Your task to perform on an android device: star an email in the gmail app Image 0: 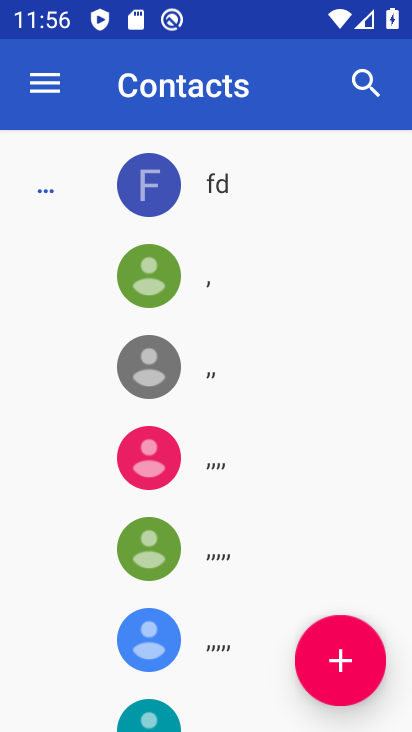
Step 0: drag from (198, 604) to (197, 371)
Your task to perform on an android device: star an email in the gmail app Image 1: 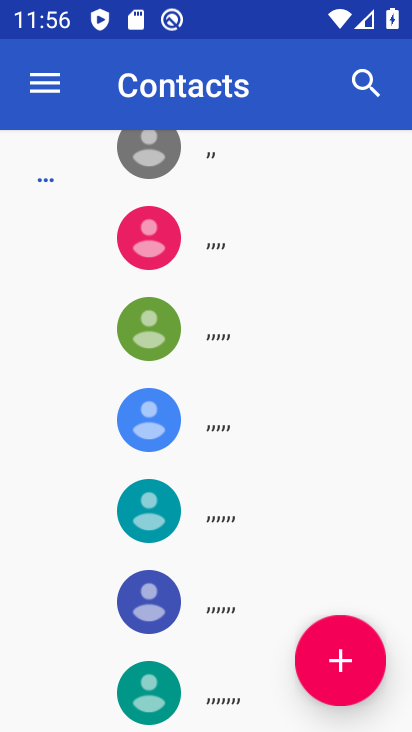
Step 1: press home button
Your task to perform on an android device: star an email in the gmail app Image 2: 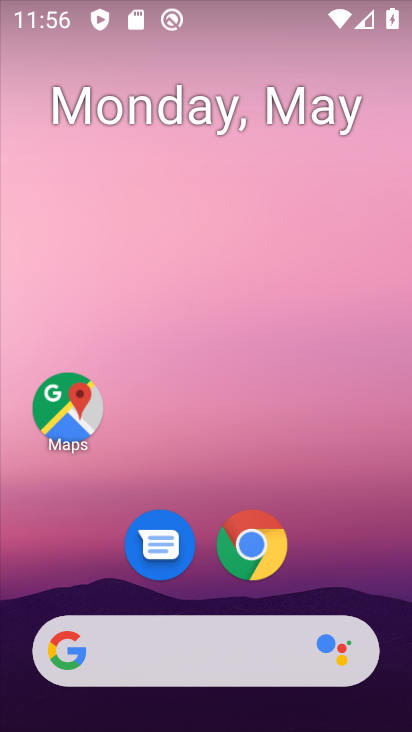
Step 2: drag from (203, 601) to (185, 167)
Your task to perform on an android device: star an email in the gmail app Image 3: 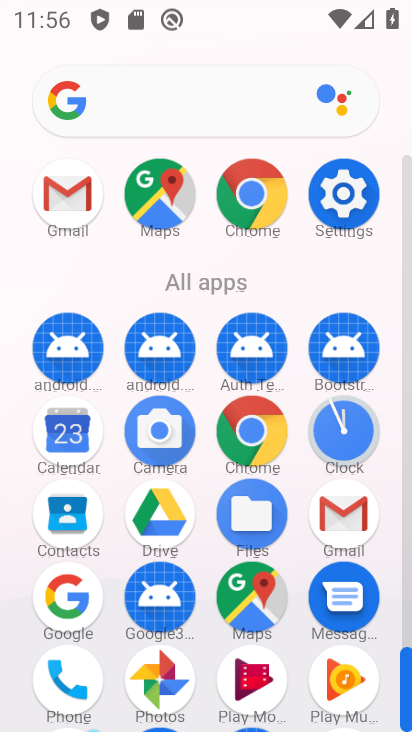
Step 3: click (82, 183)
Your task to perform on an android device: star an email in the gmail app Image 4: 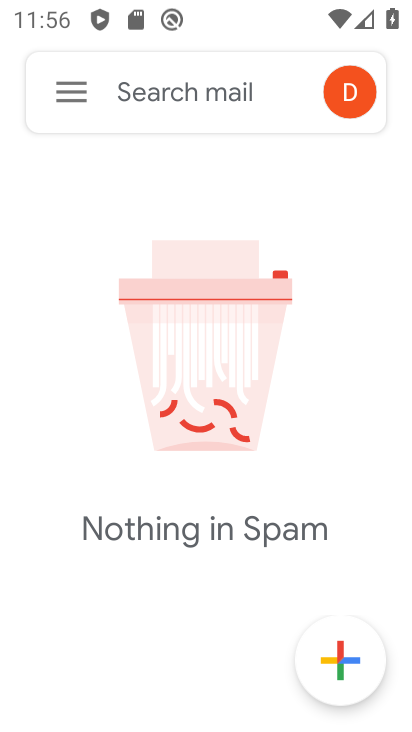
Step 4: click (71, 112)
Your task to perform on an android device: star an email in the gmail app Image 5: 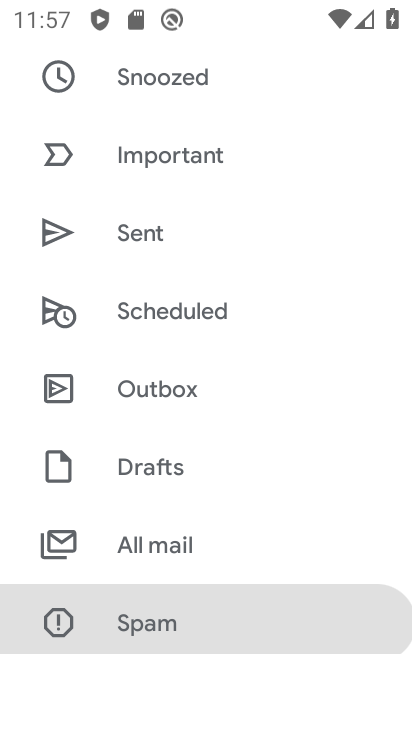
Step 5: click (125, 557)
Your task to perform on an android device: star an email in the gmail app Image 6: 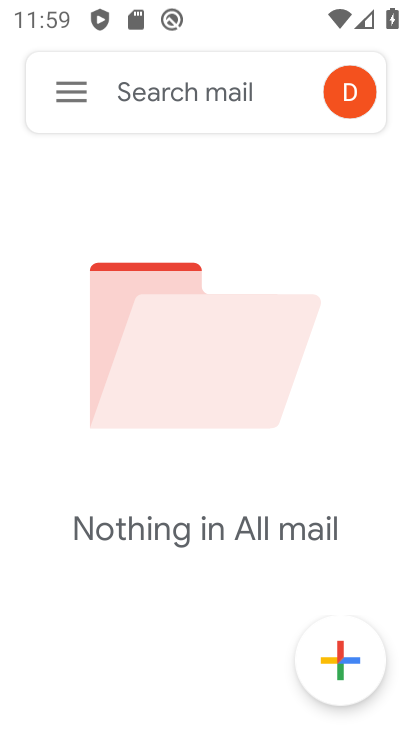
Step 6: task complete